Your task to perform on an android device: uninstall "Pluto TV - Live TV and Movies" Image 0: 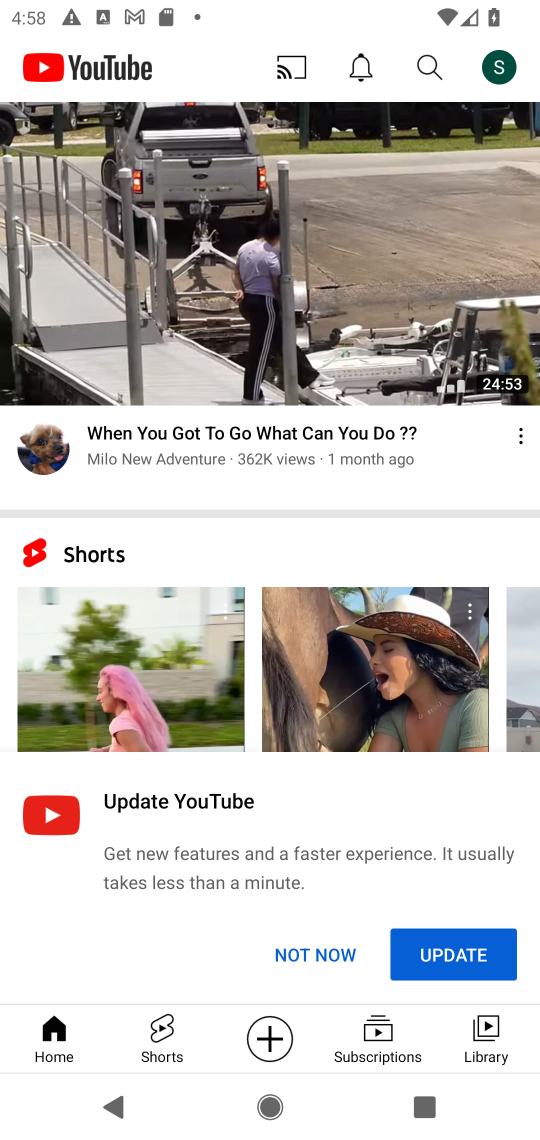
Step 0: press home button
Your task to perform on an android device: uninstall "Pluto TV - Live TV and Movies" Image 1: 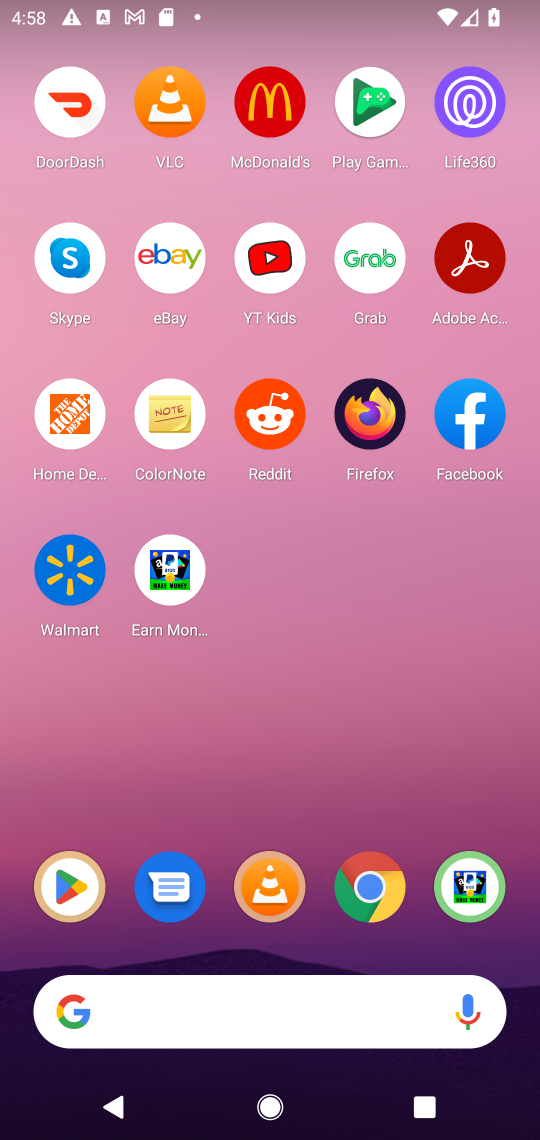
Step 1: click (60, 880)
Your task to perform on an android device: uninstall "Pluto TV - Live TV and Movies" Image 2: 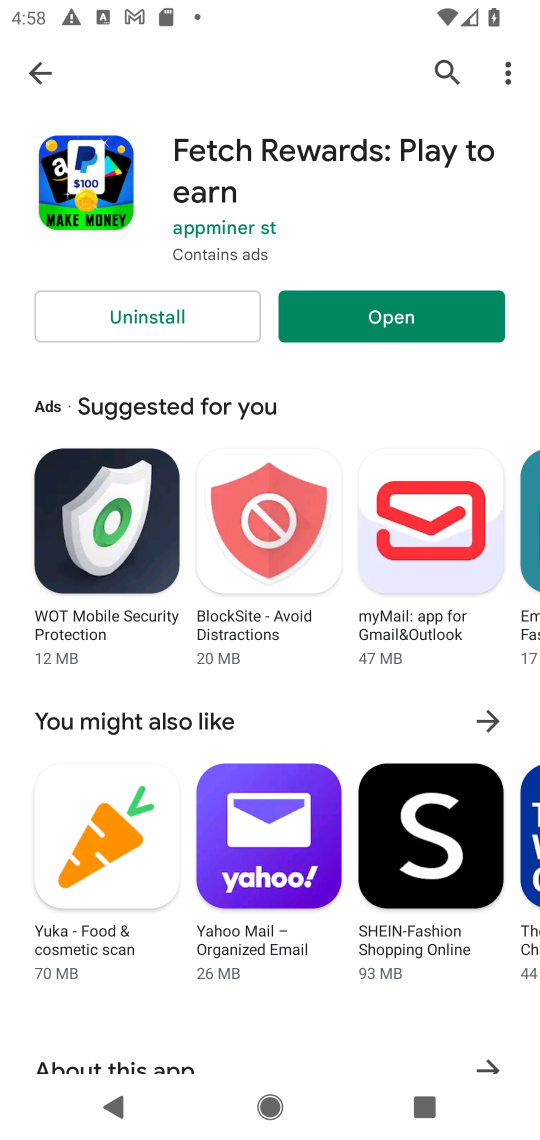
Step 2: click (47, 73)
Your task to perform on an android device: uninstall "Pluto TV - Live TV and Movies" Image 3: 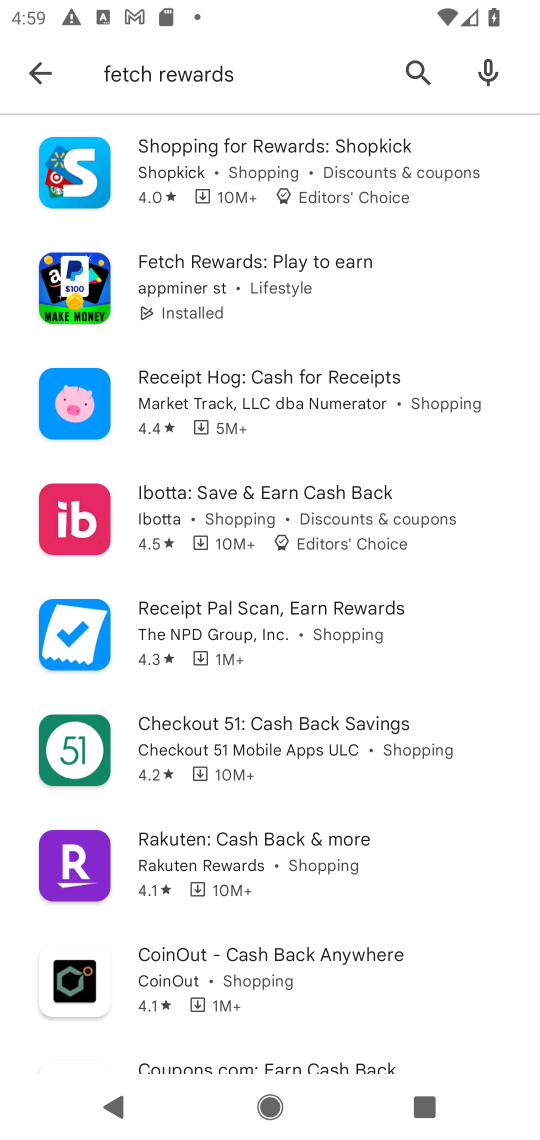
Step 3: click (162, 61)
Your task to perform on an android device: uninstall "Pluto TV - Live TV and Movies" Image 4: 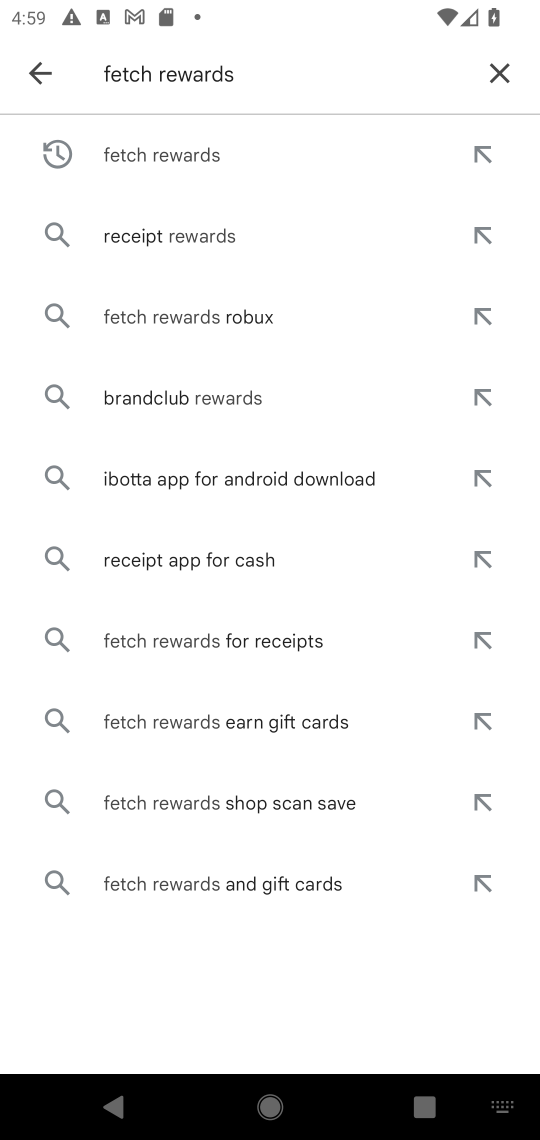
Step 4: click (510, 75)
Your task to perform on an android device: uninstall "Pluto TV - Live TV and Movies" Image 5: 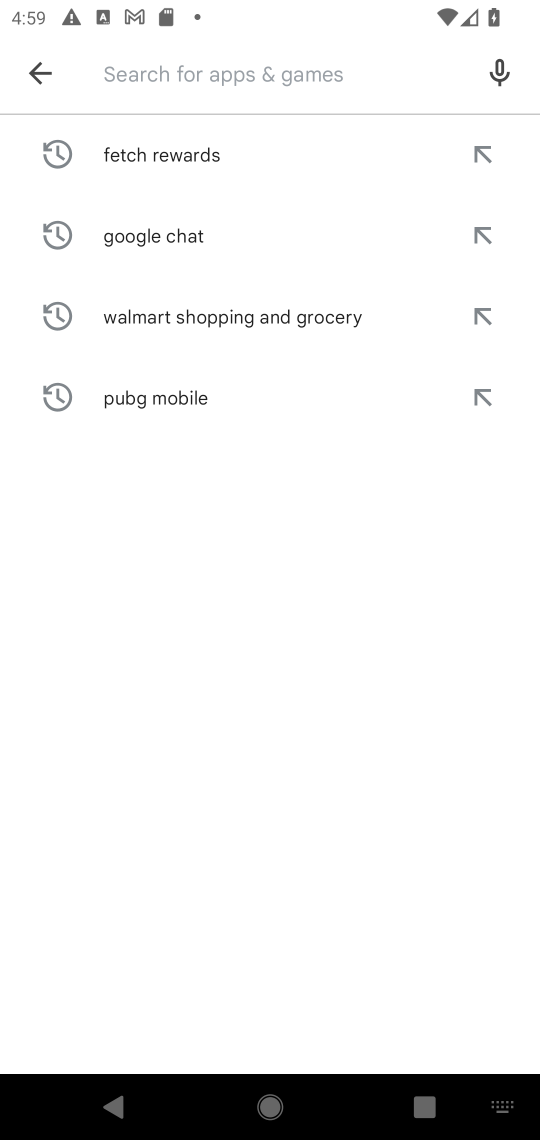
Step 5: type "Pluto TV"
Your task to perform on an android device: uninstall "Pluto TV - Live TV and Movies" Image 6: 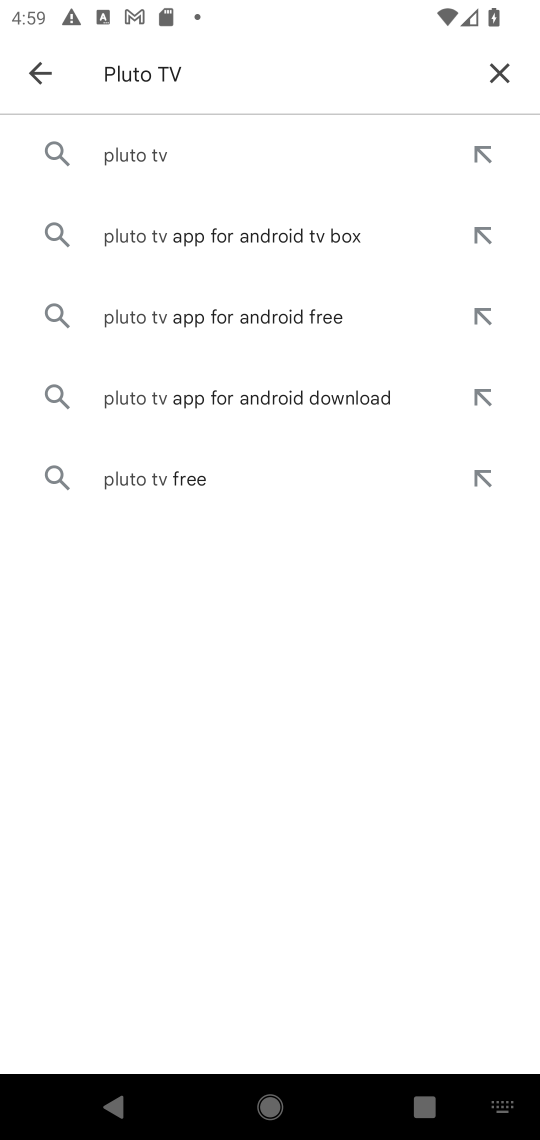
Step 6: click (159, 166)
Your task to perform on an android device: uninstall "Pluto TV - Live TV and Movies" Image 7: 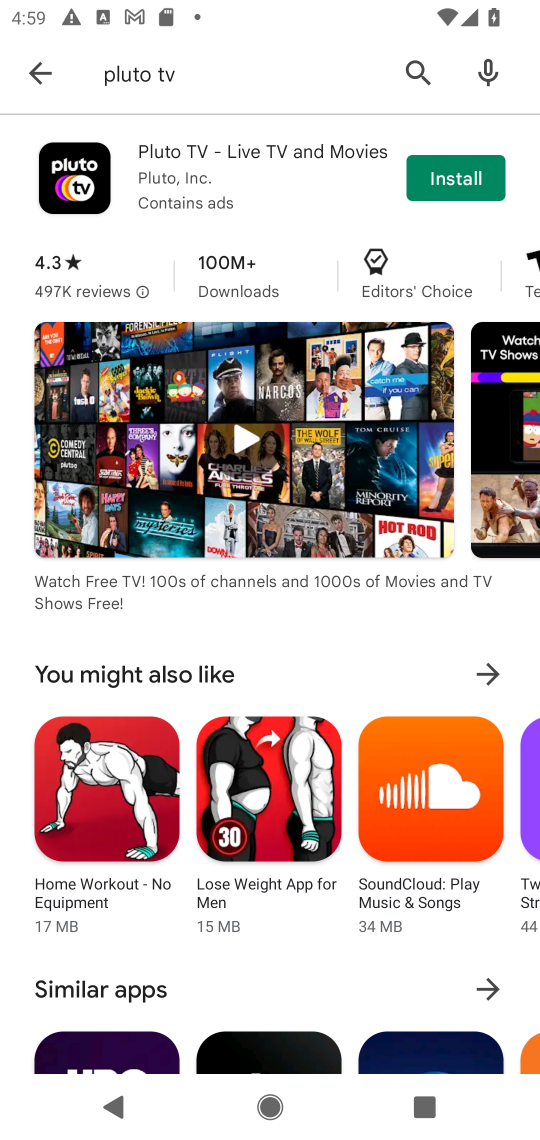
Step 7: task complete